Your task to perform on an android device: add a label to a message in the gmail app Image 0: 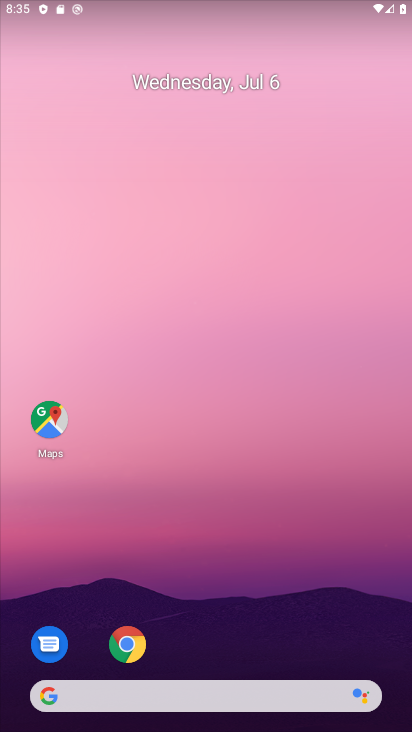
Step 0: drag from (190, 671) to (188, 7)
Your task to perform on an android device: add a label to a message in the gmail app Image 1: 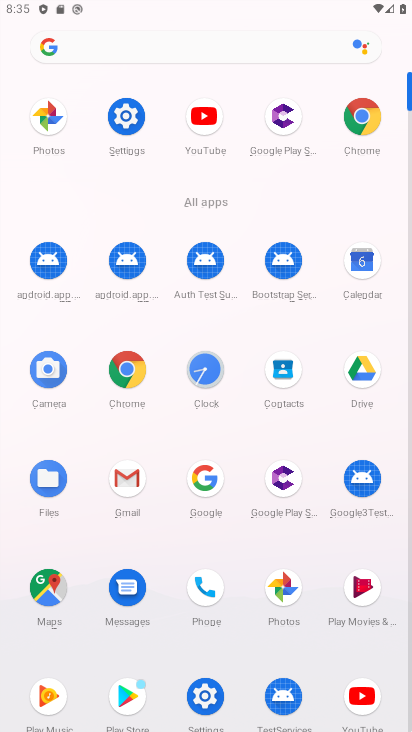
Step 1: click (136, 482)
Your task to perform on an android device: add a label to a message in the gmail app Image 2: 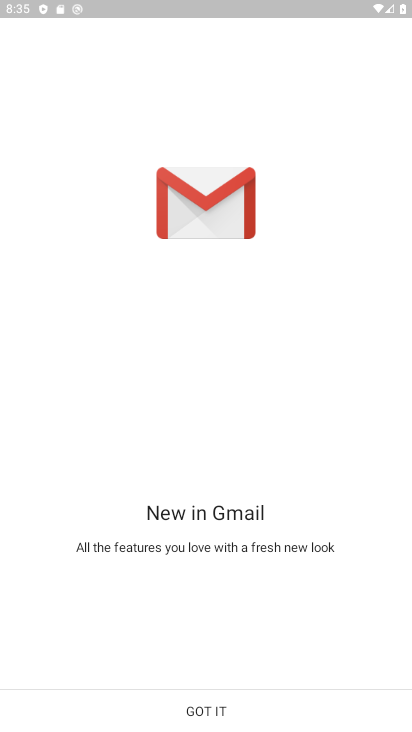
Step 2: click (192, 711)
Your task to perform on an android device: add a label to a message in the gmail app Image 3: 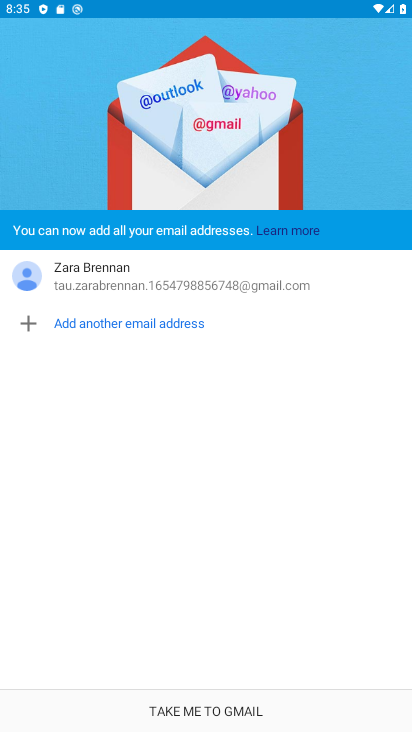
Step 3: click (192, 708)
Your task to perform on an android device: add a label to a message in the gmail app Image 4: 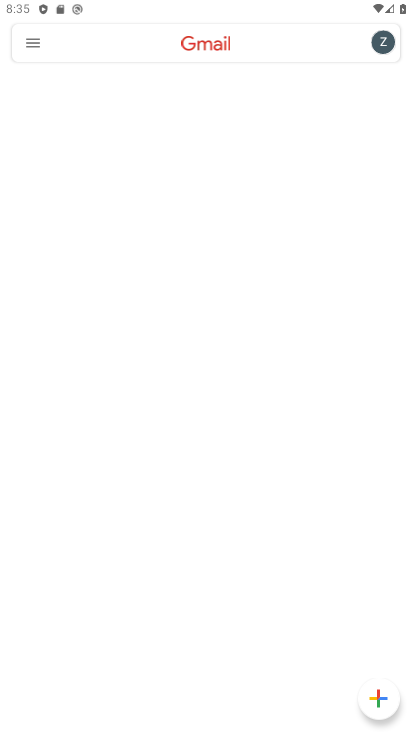
Step 4: task complete